Your task to perform on an android device: turn on the 12-hour format for clock Image 0: 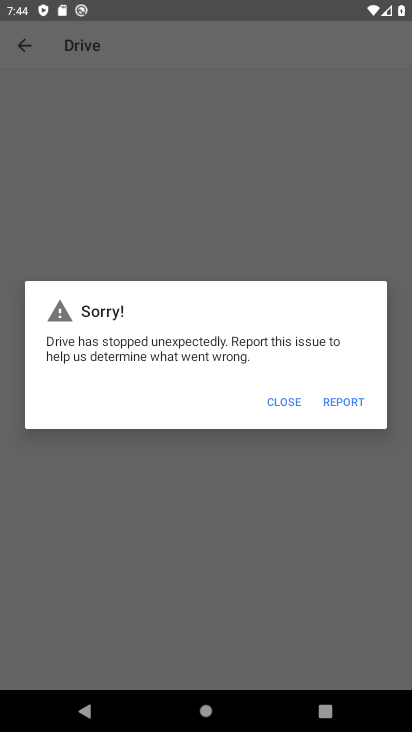
Step 0: press home button
Your task to perform on an android device: turn on the 12-hour format for clock Image 1: 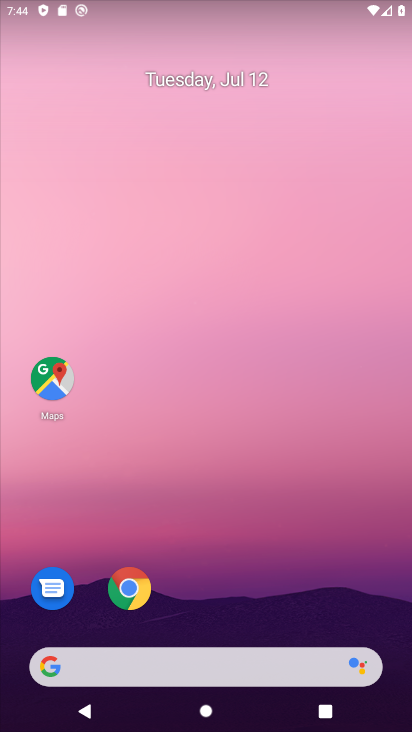
Step 1: drag from (245, 529) to (288, 189)
Your task to perform on an android device: turn on the 12-hour format for clock Image 2: 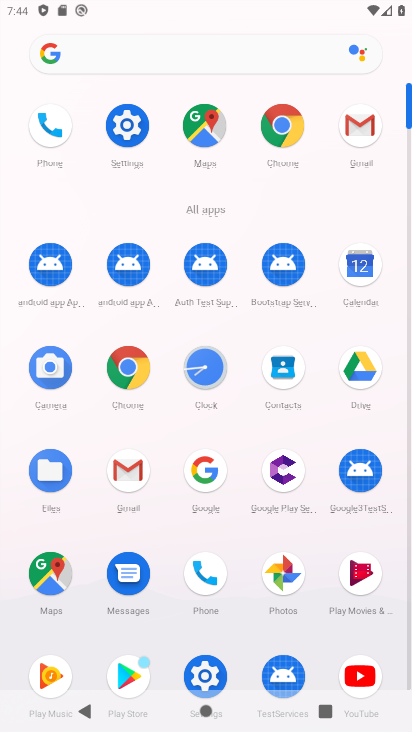
Step 2: click (222, 382)
Your task to perform on an android device: turn on the 12-hour format for clock Image 3: 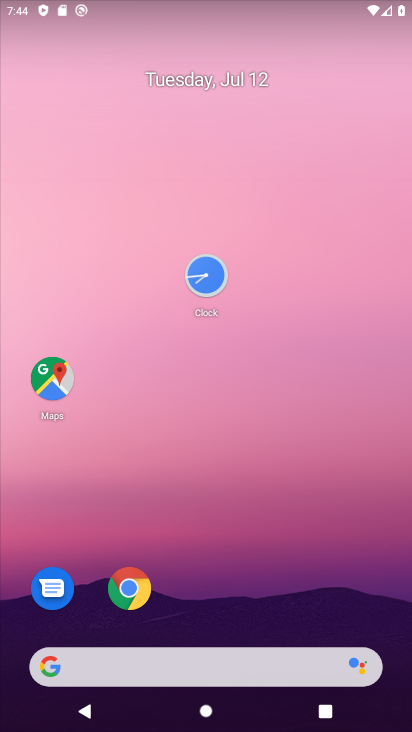
Step 3: click (200, 282)
Your task to perform on an android device: turn on the 12-hour format for clock Image 4: 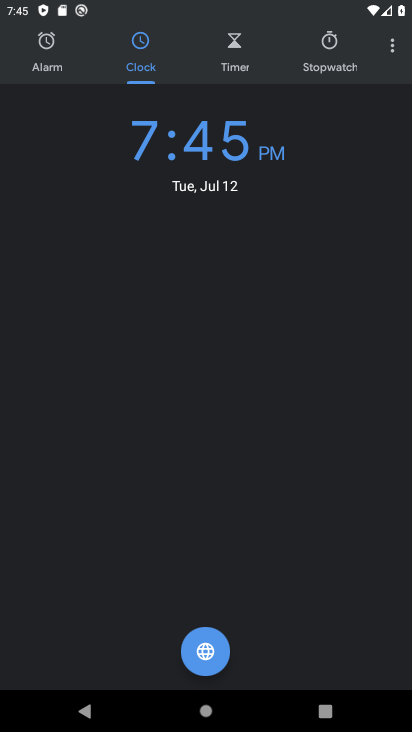
Step 4: click (392, 46)
Your task to perform on an android device: turn on the 12-hour format for clock Image 5: 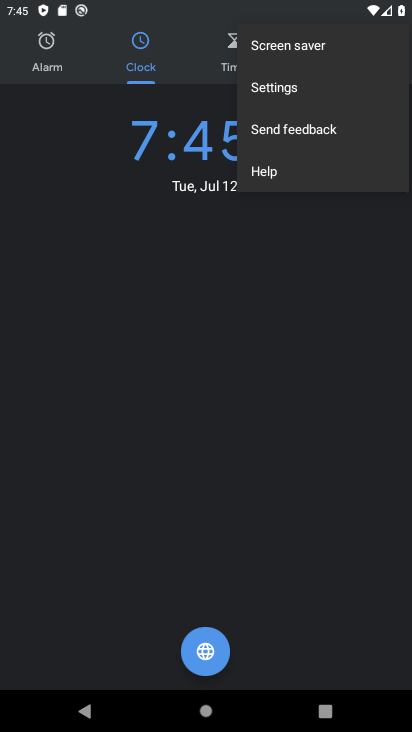
Step 5: click (242, 91)
Your task to perform on an android device: turn on the 12-hour format for clock Image 6: 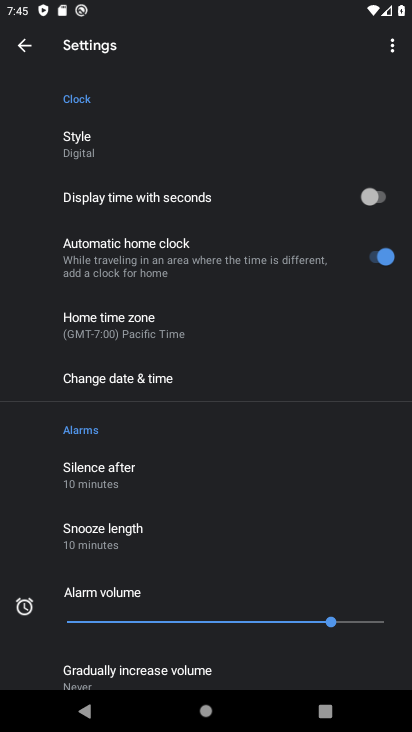
Step 6: click (159, 376)
Your task to perform on an android device: turn on the 12-hour format for clock Image 7: 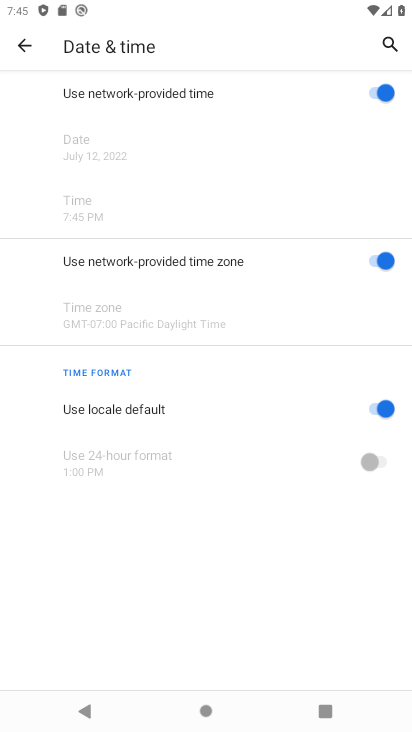
Step 7: task complete